Your task to perform on an android device: Go to Maps Image 0: 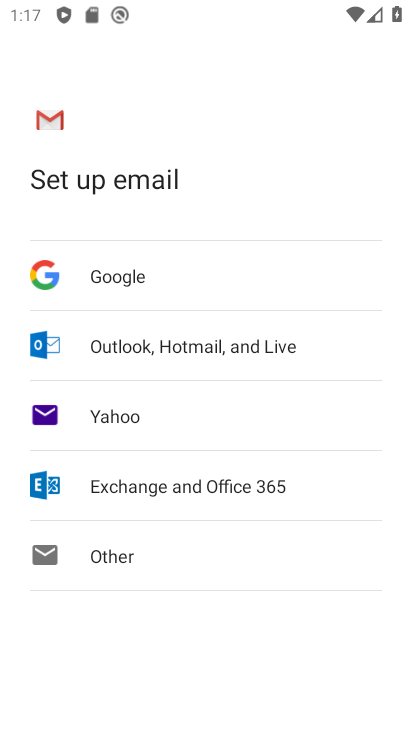
Step 0: press home button
Your task to perform on an android device: Go to Maps Image 1: 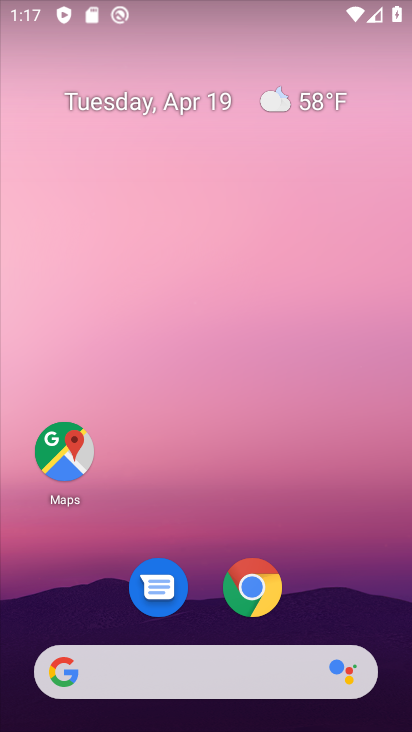
Step 1: click (64, 468)
Your task to perform on an android device: Go to Maps Image 2: 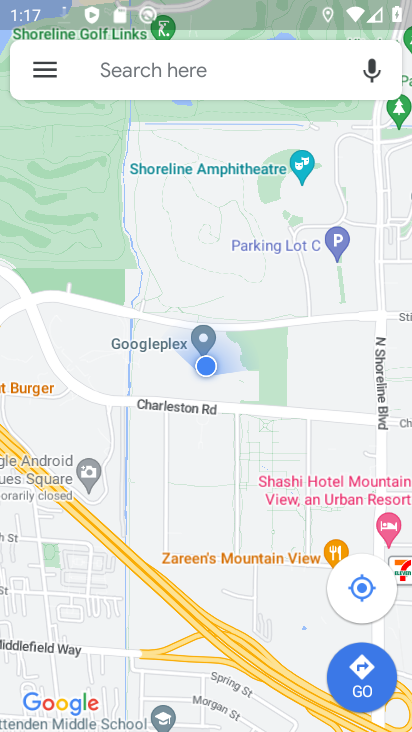
Step 2: task complete